Your task to perform on an android device: Open Yahoo.com Image 0: 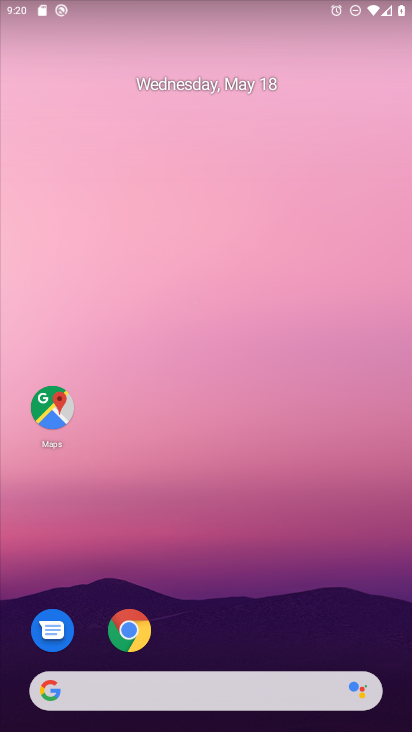
Step 0: drag from (235, 650) to (208, 32)
Your task to perform on an android device: Open Yahoo.com Image 1: 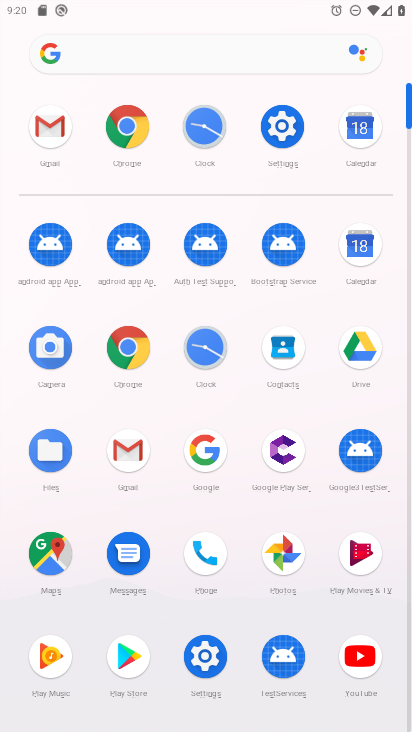
Step 1: click (120, 351)
Your task to perform on an android device: Open Yahoo.com Image 2: 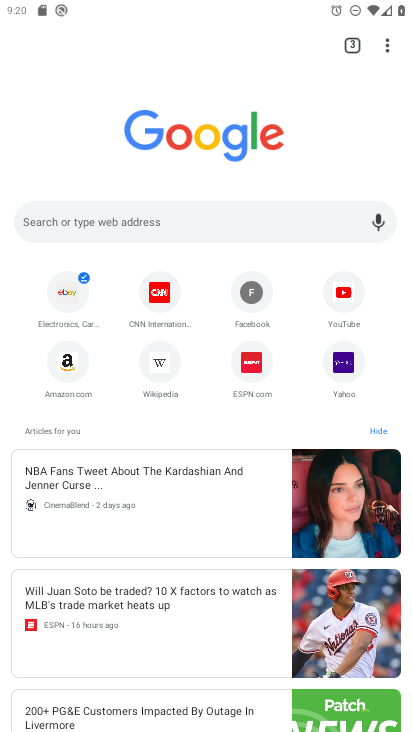
Step 2: click (327, 366)
Your task to perform on an android device: Open Yahoo.com Image 3: 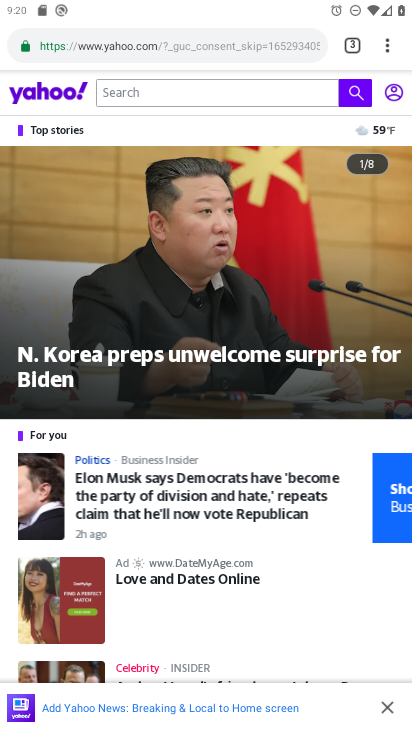
Step 3: task complete